Your task to perform on an android device: What's the weather going to be this weekend? Image 0: 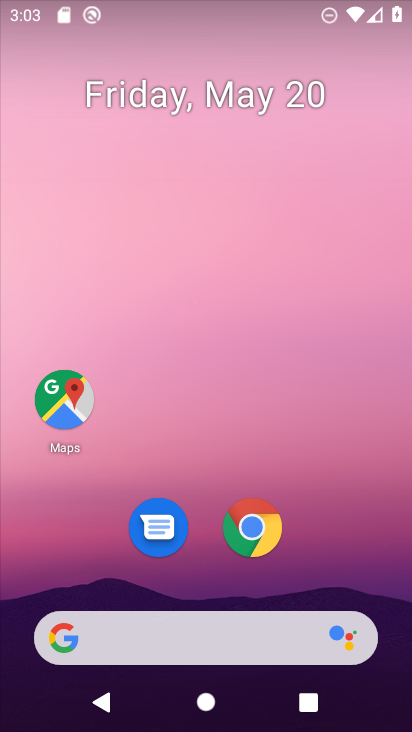
Step 0: drag from (163, 556) to (265, 24)
Your task to perform on an android device: What's the weather going to be this weekend? Image 1: 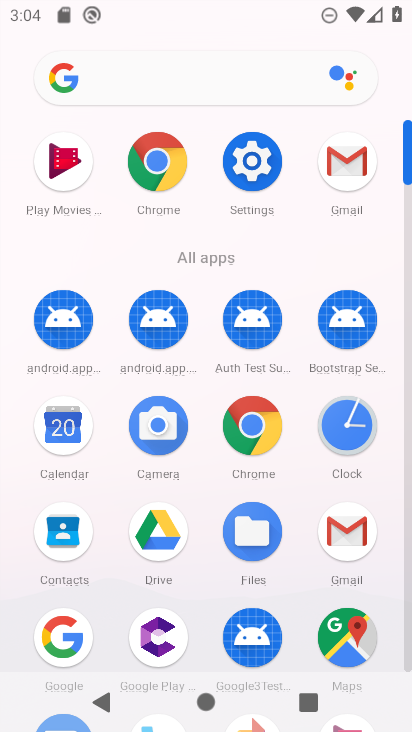
Step 1: click (180, 85)
Your task to perform on an android device: What's the weather going to be this weekend? Image 2: 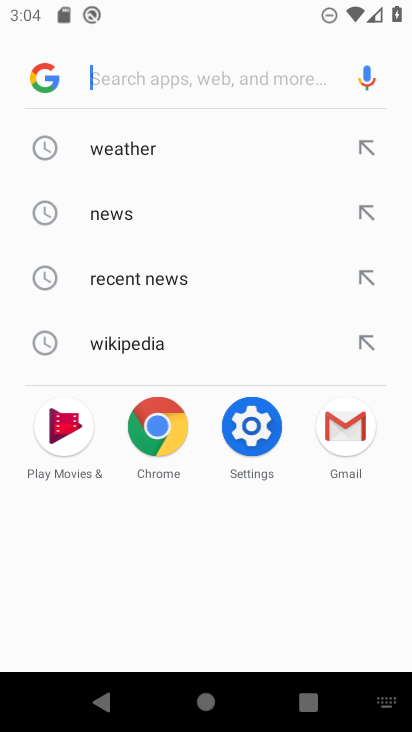
Step 2: click (149, 143)
Your task to perform on an android device: What's the weather going to be this weekend? Image 3: 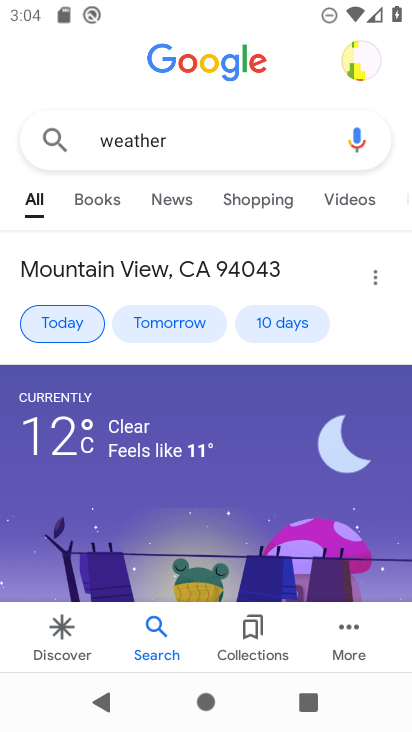
Step 3: click (290, 334)
Your task to perform on an android device: What's the weather going to be this weekend? Image 4: 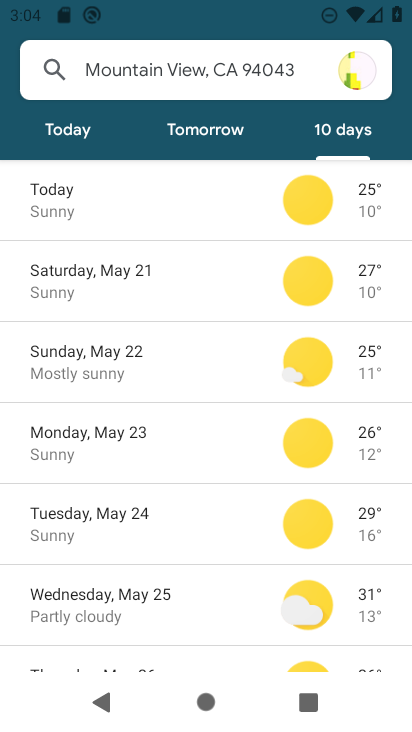
Step 4: task complete